Your task to perform on an android device: open chrome and create a bookmark for the current page Image 0: 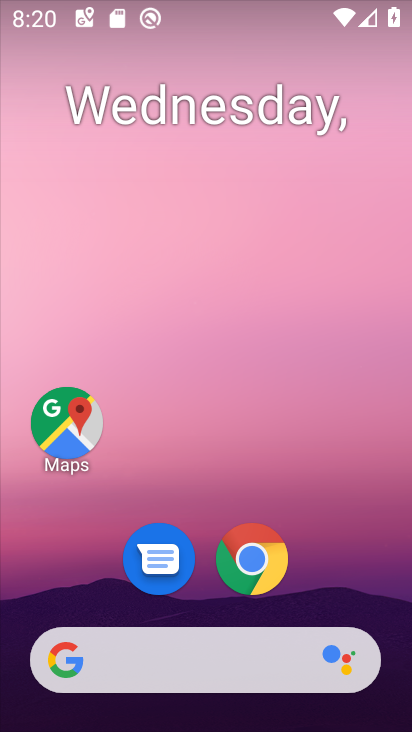
Step 0: drag from (345, 529) to (361, 224)
Your task to perform on an android device: open chrome and create a bookmark for the current page Image 1: 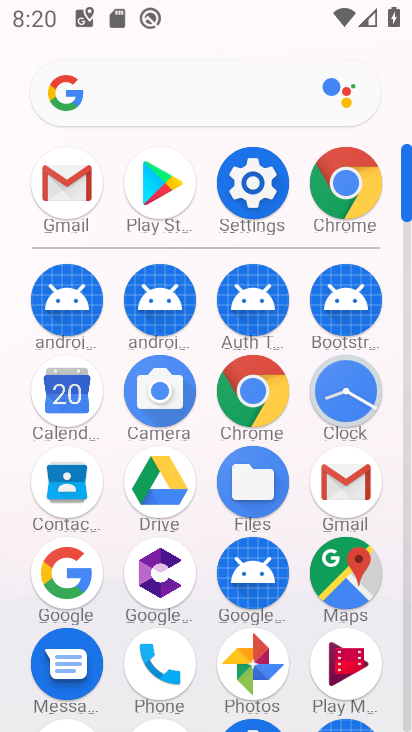
Step 1: click (262, 406)
Your task to perform on an android device: open chrome and create a bookmark for the current page Image 2: 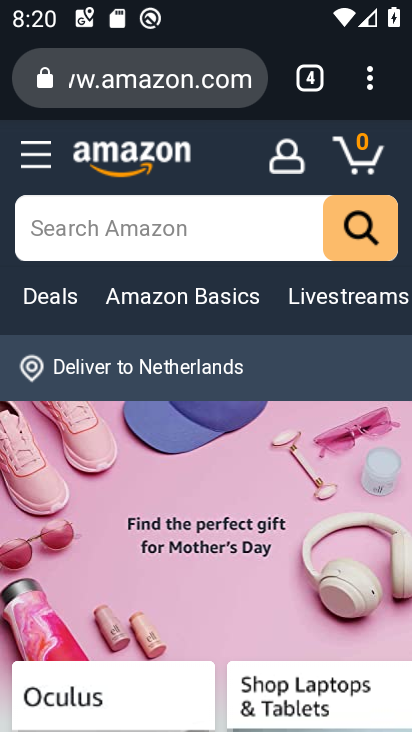
Step 2: click (311, 79)
Your task to perform on an android device: open chrome and create a bookmark for the current page Image 3: 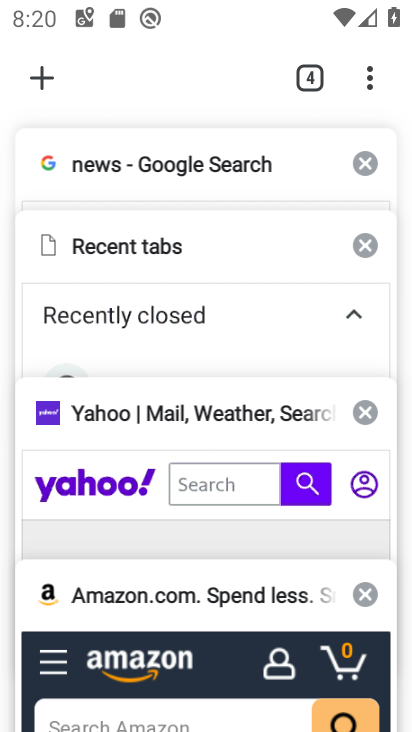
Step 3: click (44, 77)
Your task to perform on an android device: open chrome and create a bookmark for the current page Image 4: 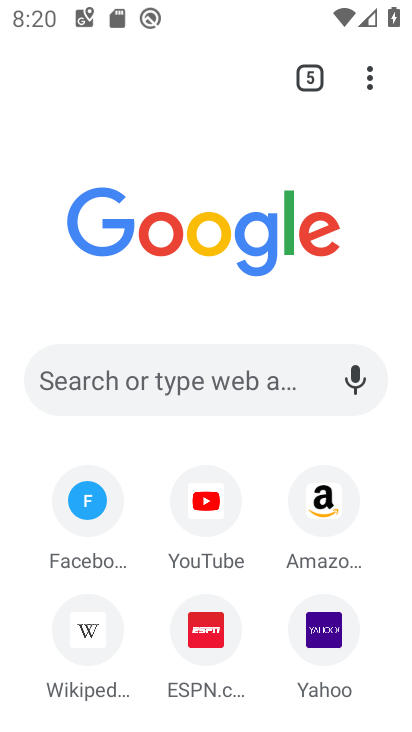
Step 4: click (177, 382)
Your task to perform on an android device: open chrome and create a bookmark for the current page Image 5: 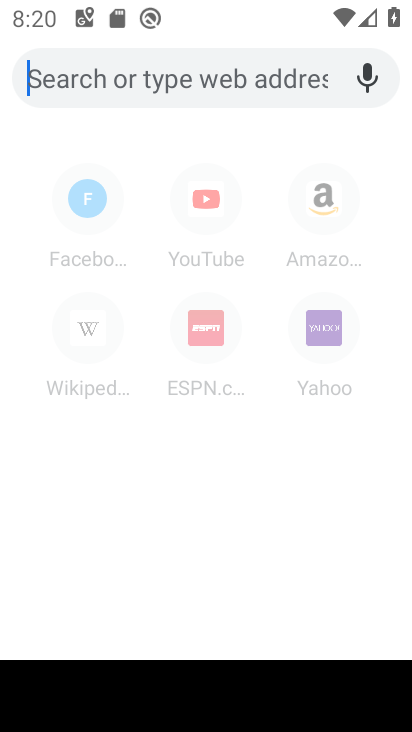
Step 5: type "ipl"
Your task to perform on an android device: open chrome and create a bookmark for the current page Image 6: 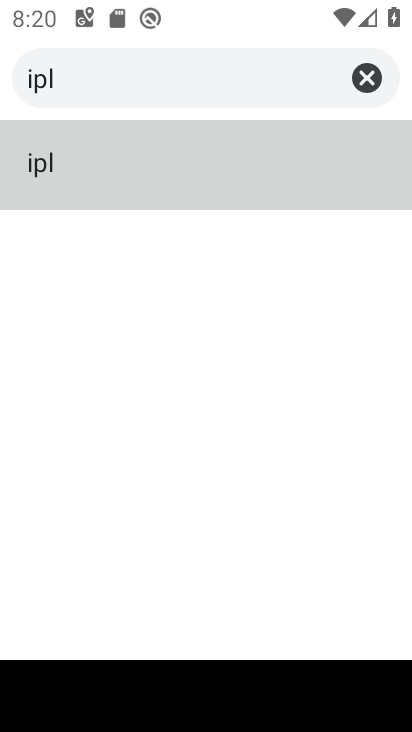
Step 6: click (32, 160)
Your task to perform on an android device: open chrome and create a bookmark for the current page Image 7: 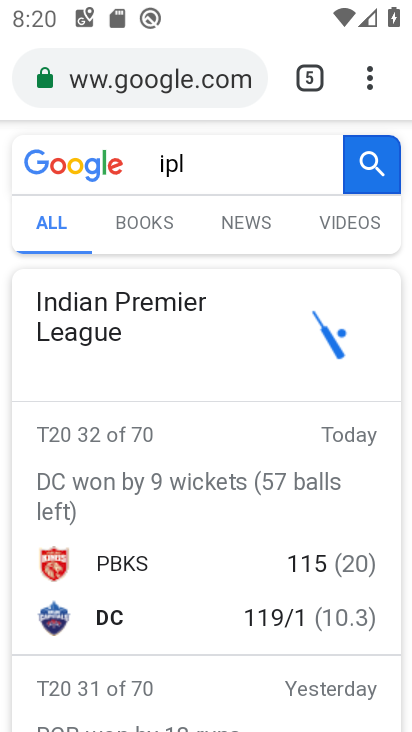
Step 7: drag from (169, 643) to (208, 309)
Your task to perform on an android device: open chrome and create a bookmark for the current page Image 8: 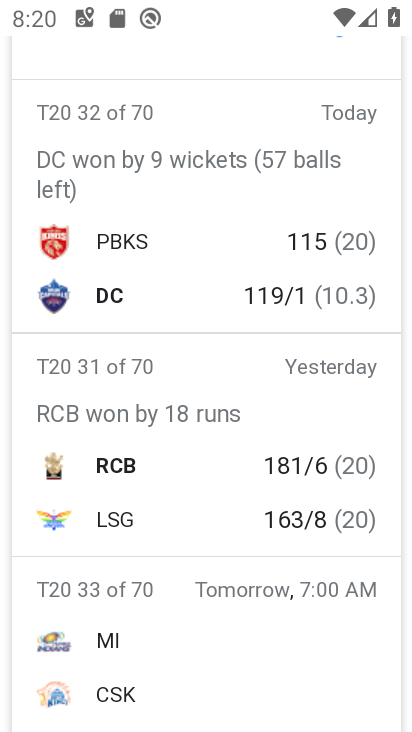
Step 8: drag from (192, 638) to (174, 226)
Your task to perform on an android device: open chrome and create a bookmark for the current page Image 9: 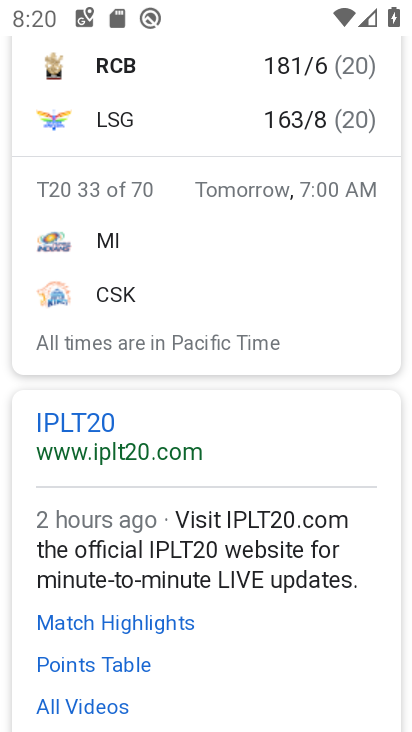
Step 9: click (56, 419)
Your task to perform on an android device: open chrome and create a bookmark for the current page Image 10: 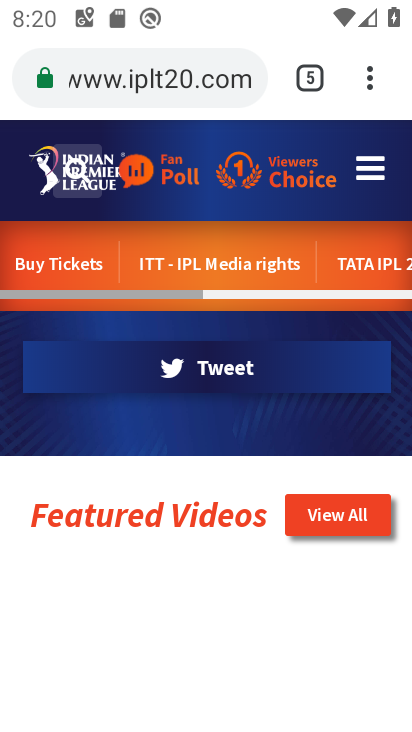
Step 10: click (374, 81)
Your task to perform on an android device: open chrome and create a bookmark for the current page Image 11: 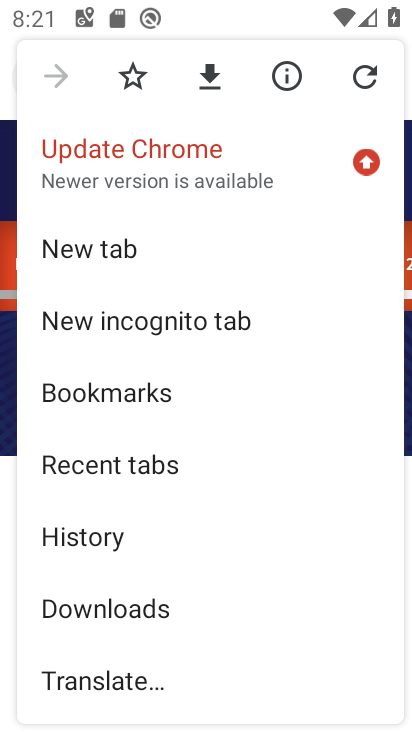
Step 11: click (134, 77)
Your task to perform on an android device: open chrome and create a bookmark for the current page Image 12: 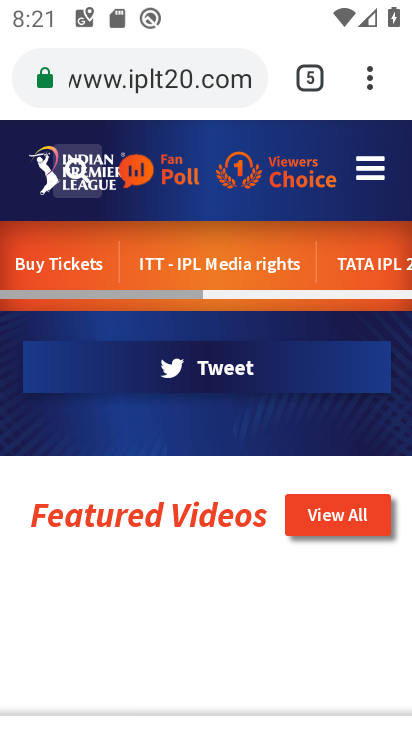
Step 12: task complete